Your task to perform on an android device: Open Google Chrome and click the shortcut for Amazon.com Image 0: 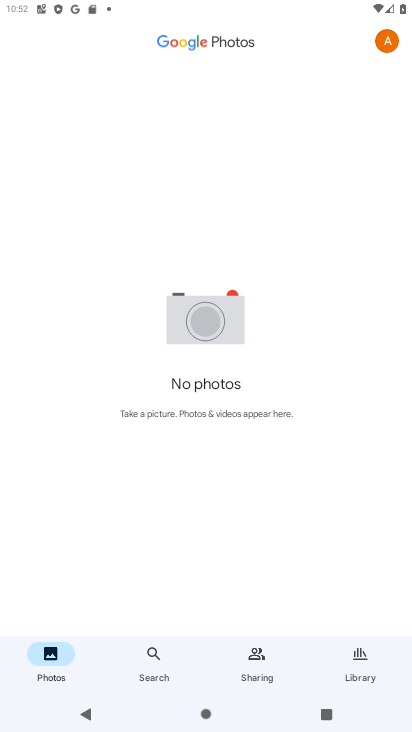
Step 0: press home button
Your task to perform on an android device: Open Google Chrome and click the shortcut for Amazon.com Image 1: 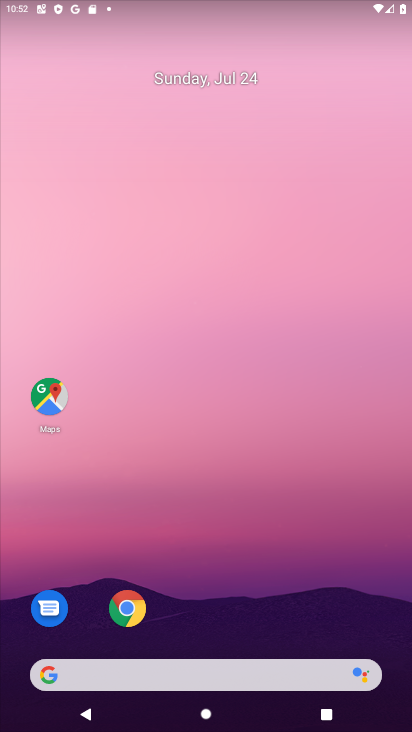
Step 1: click (129, 605)
Your task to perform on an android device: Open Google Chrome and click the shortcut for Amazon.com Image 2: 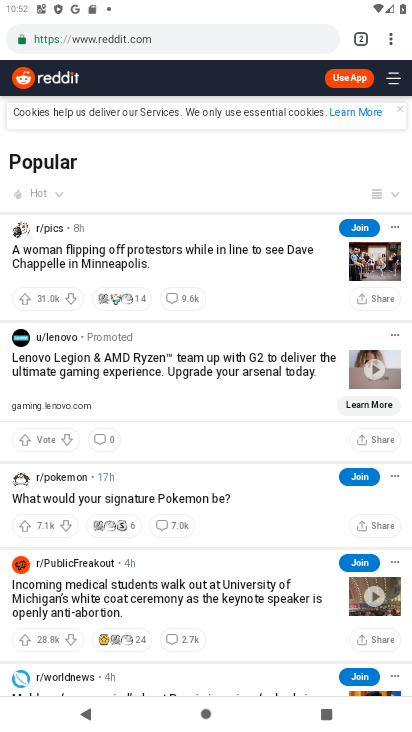
Step 2: click (357, 30)
Your task to perform on an android device: Open Google Chrome and click the shortcut for Amazon.com Image 3: 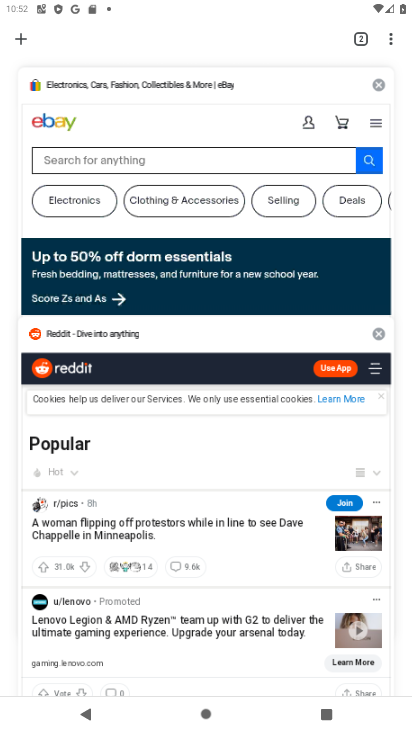
Step 3: click (24, 31)
Your task to perform on an android device: Open Google Chrome and click the shortcut for Amazon.com Image 4: 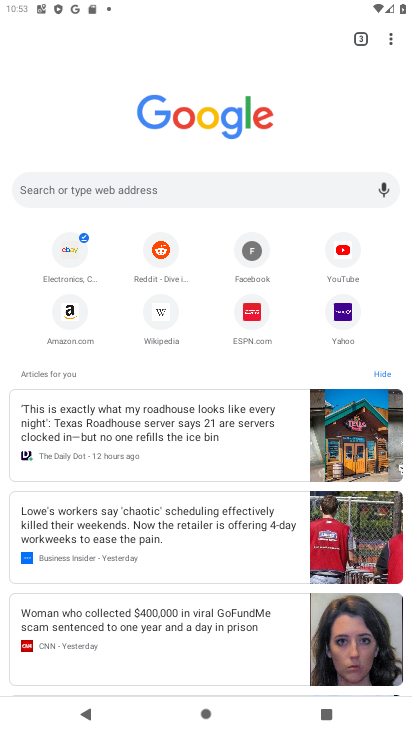
Step 4: click (71, 304)
Your task to perform on an android device: Open Google Chrome and click the shortcut for Amazon.com Image 5: 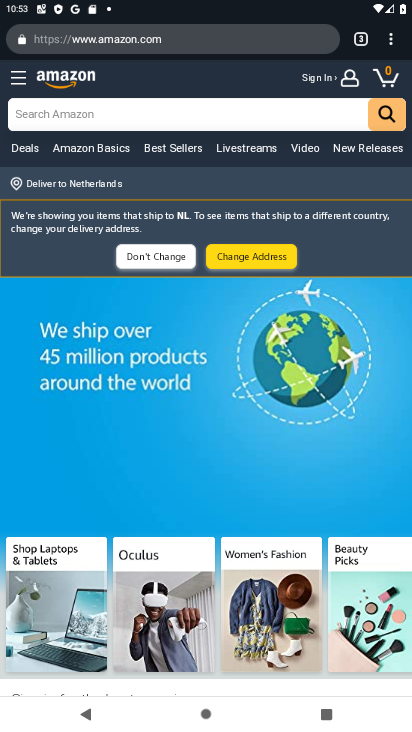
Step 5: task complete